Your task to perform on an android device: Search for macbook pro 15 inch on newegg.com, select the first entry, add it to the cart, then select checkout. Image 0: 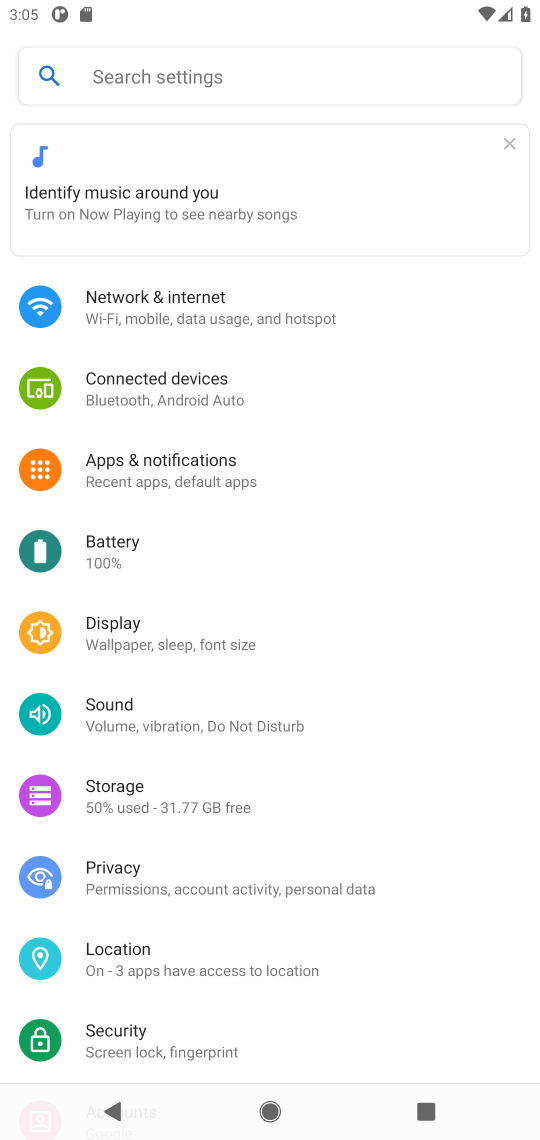
Step 0: press home button
Your task to perform on an android device: Search for macbook pro 15 inch on newegg.com, select the first entry, add it to the cart, then select checkout. Image 1: 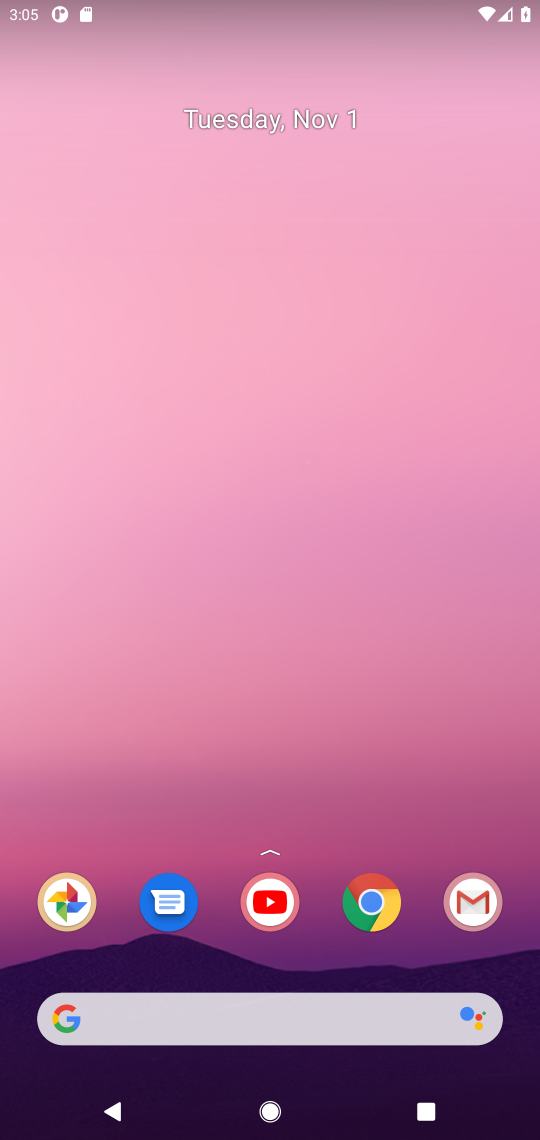
Step 1: click (371, 903)
Your task to perform on an android device: Search for macbook pro 15 inch on newegg.com, select the first entry, add it to the cart, then select checkout. Image 2: 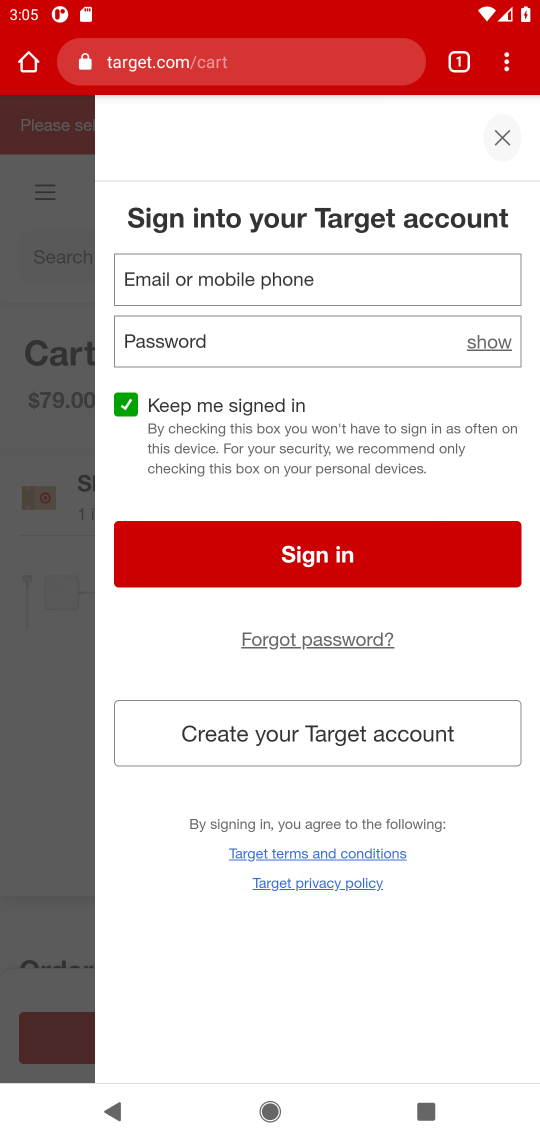
Step 2: click (309, 68)
Your task to perform on an android device: Search for macbook pro 15 inch on newegg.com, select the first entry, add it to the cart, then select checkout. Image 3: 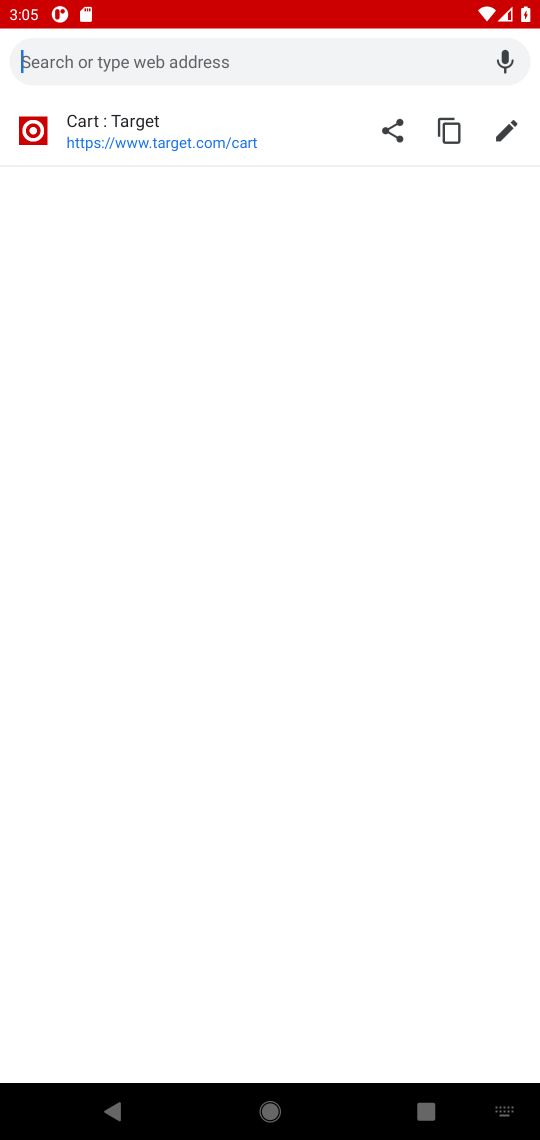
Step 3: type "newegg.com"
Your task to perform on an android device: Search for macbook pro 15 inch on newegg.com, select the first entry, add it to the cart, then select checkout. Image 4: 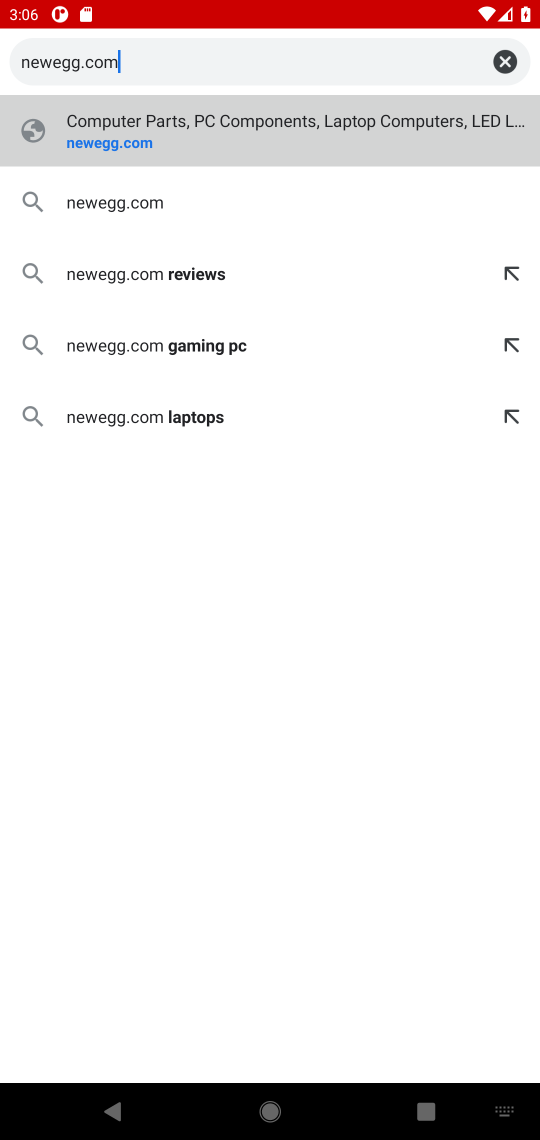
Step 4: click (158, 208)
Your task to perform on an android device: Search for macbook pro 15 inch on newegg.com, select the first entry, add it to the cart, then select checkout. Image 5: 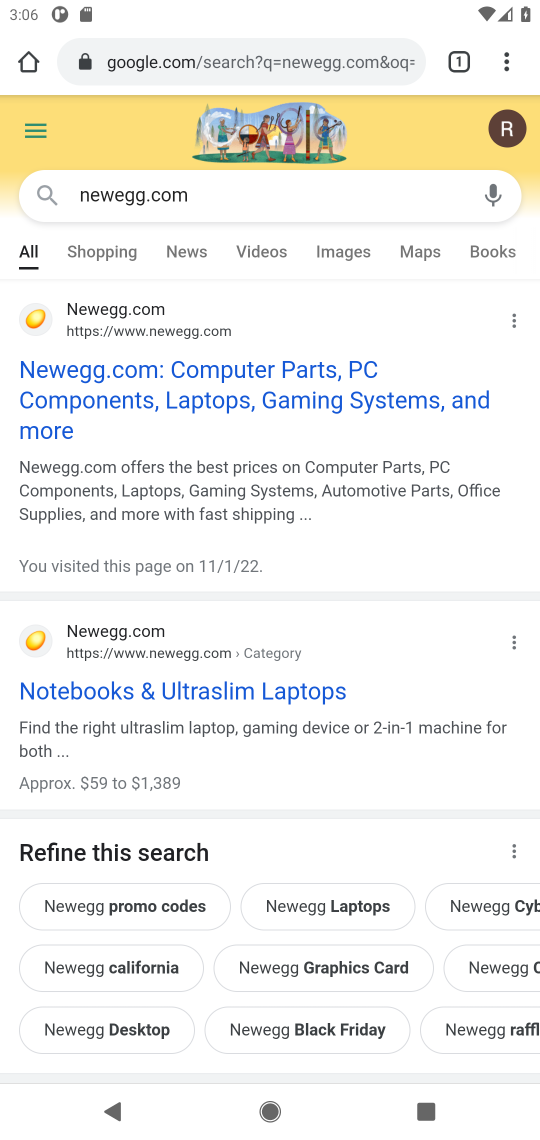
Step 5: click (115, 320)
Your task to perform on an android device: Search for macbook pro 15 inch on newegg.com, select the first entry, add it to the cart, then select checkout. Image 6: 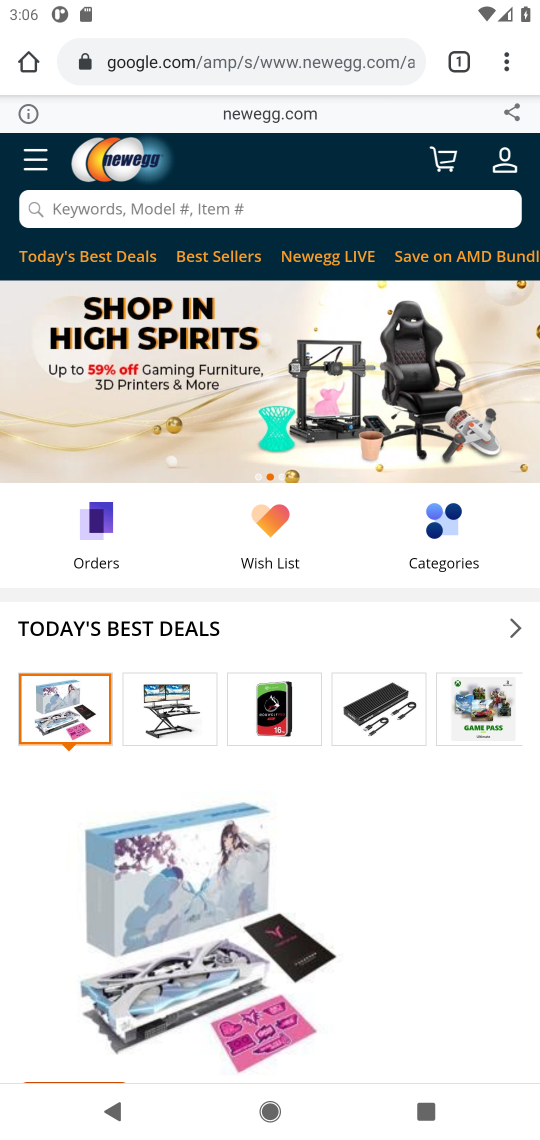
Step 6: click (334, 215)
Your task to perform on an android device: Search for macbook pro 15 inch on newegg.com, select the first entry, add it to the cart, then select checkout. Image 7: 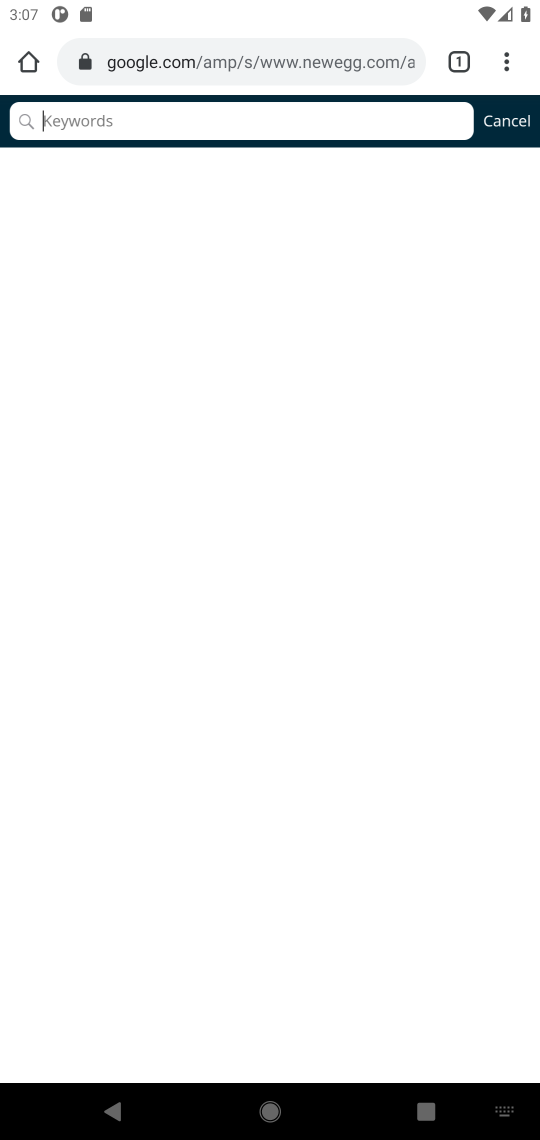
Step 7: type "macbook pro 15 inch"
Your task to perform on an android device: Search for macbook pro 15 inch on newegg.com, select the first entry, add it to the cart, then select checkout. Image 8: 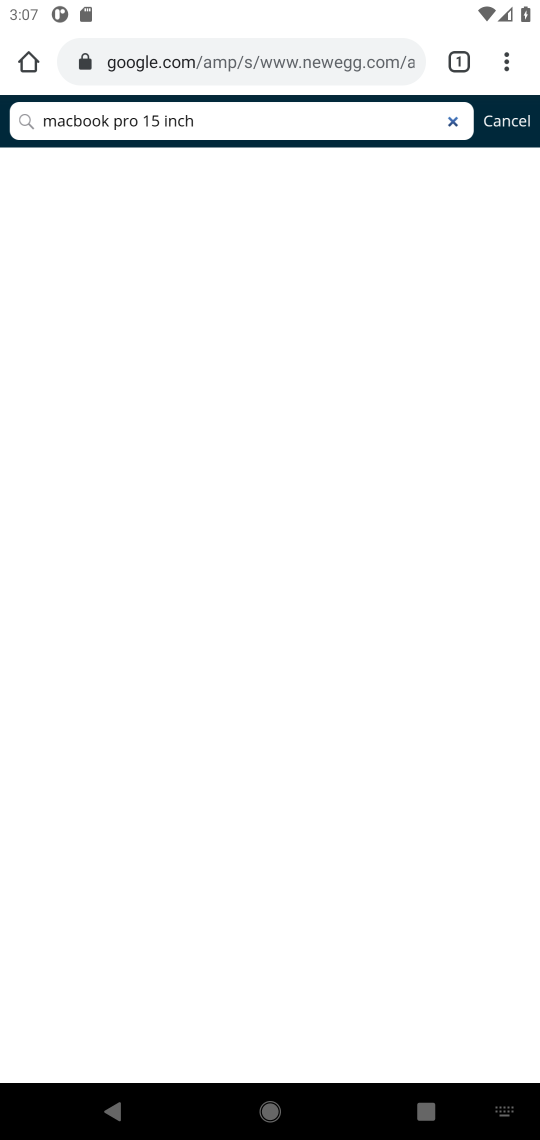
Step 8: task complete